Your task to perform on an android device: What's the weather going to be this weekend? Image 0: 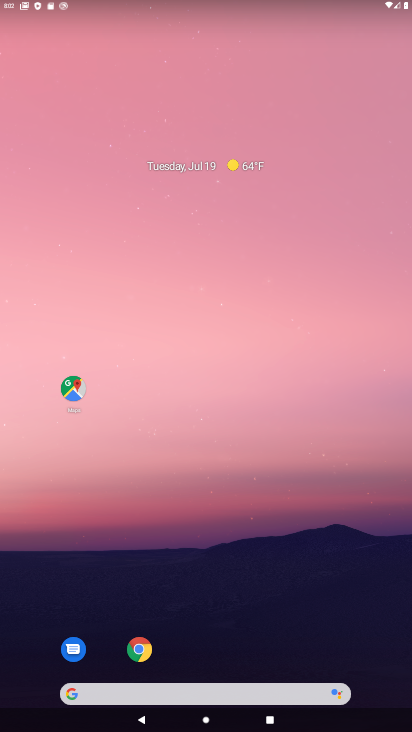
Step 0: drag from (189, 632) to (189, 113)
Your task to perform on an android device: What's the weather going to be this weekend? Image 1: 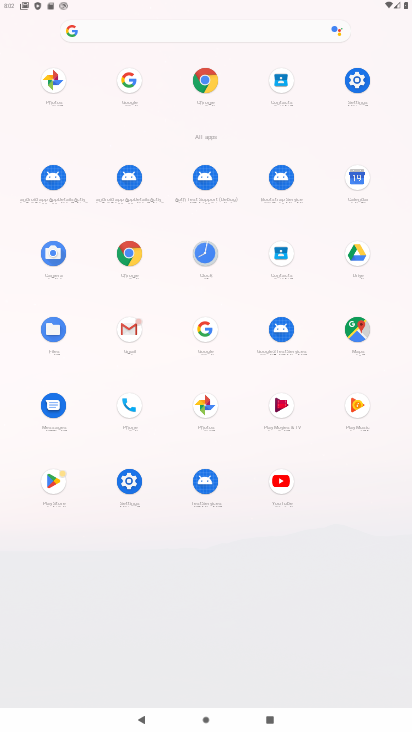
Step 1: click (216, 335)
Your task to perform on an android device: What's the weather going to be this weekend? Image 2: 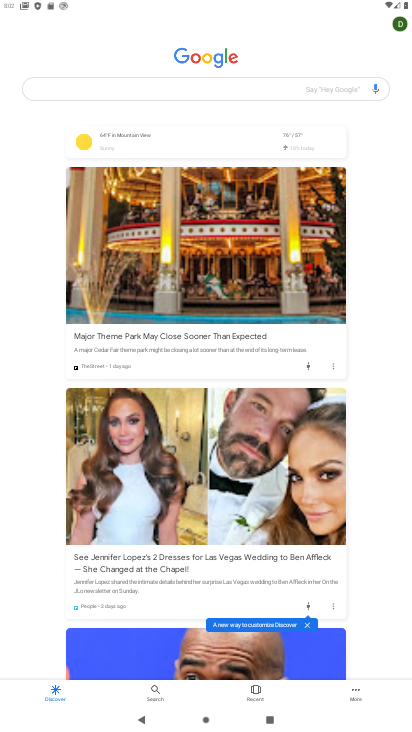
Step 2: click (204, 81)
Your task to perform on an android device: What's the weather going to be this weekend? Image 3: 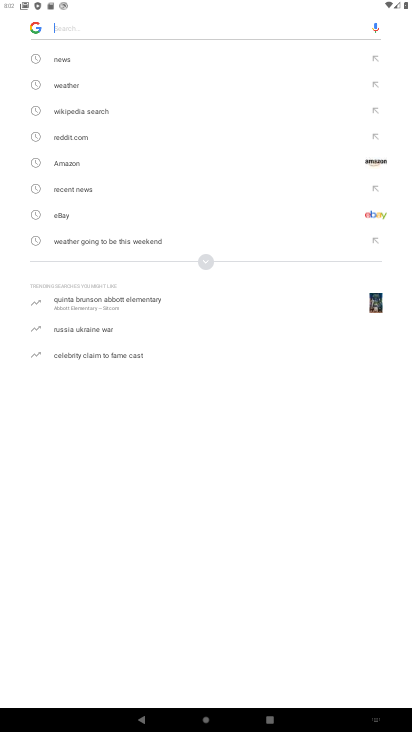
Step 3: click (81, 90)
Your task to perform on an android device: What's the weather going to be this weekend? Image 4: 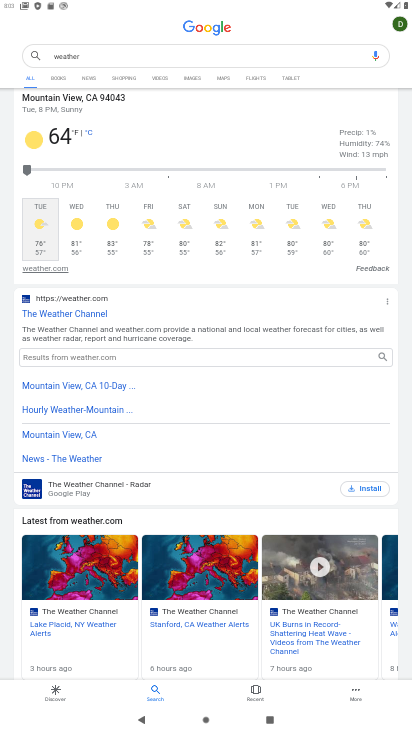
Step 4: task complete